Your task to perform on an android device: Open Youtube and go to "Your channel" Image 0: 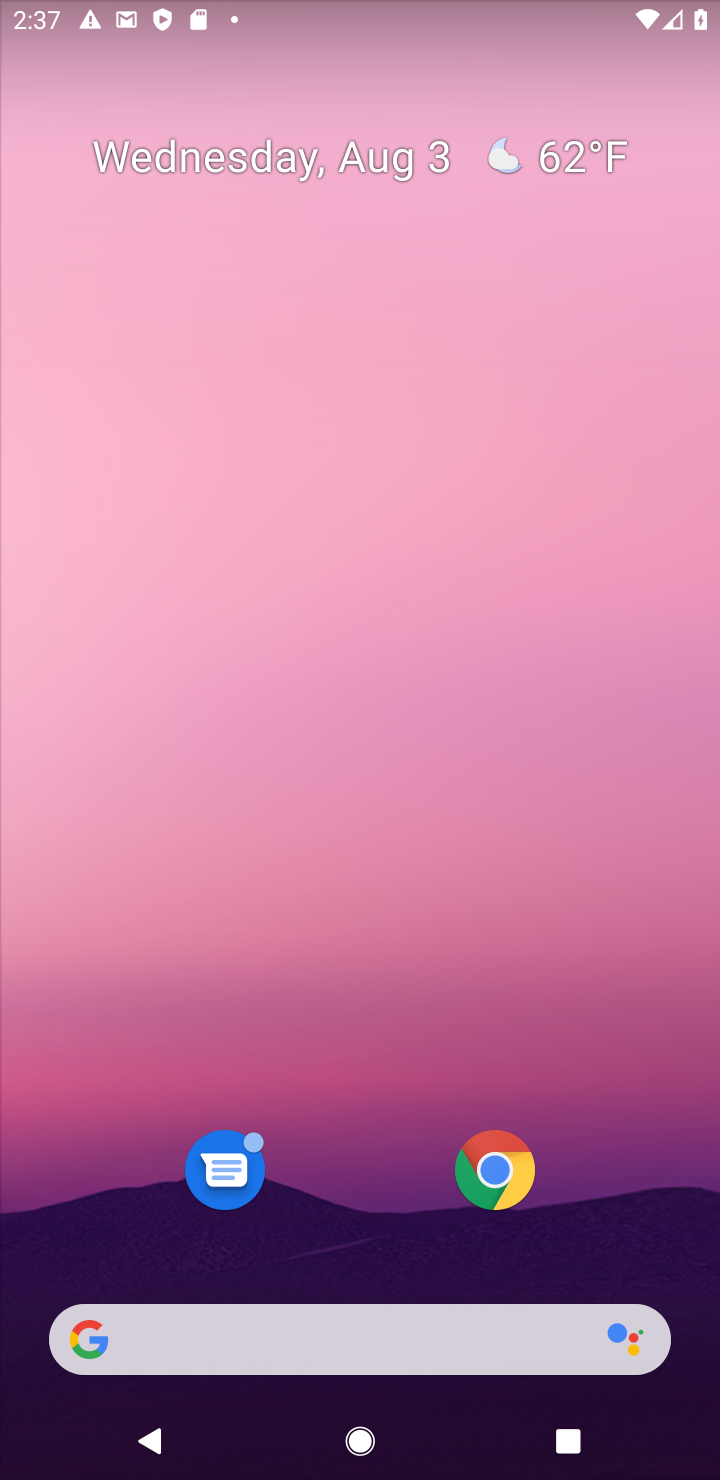
Step 0: drag from (332, 978) to (343, 25)
Your task to perform on an android device: Open Youtube and go to "Your channel" Image 1: 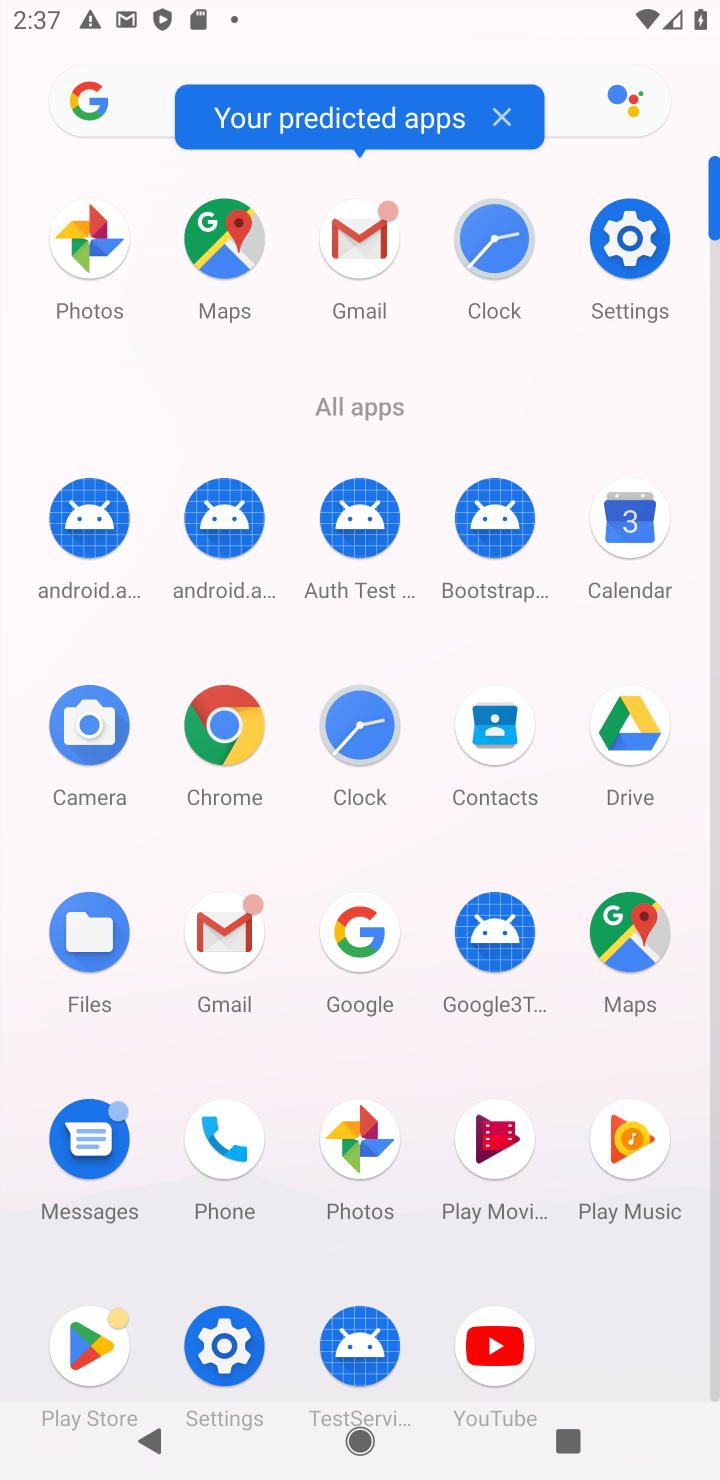
Step 1: click (473, 1346)
Your task to perform on an android device: Open Youtube and go to "Your channel" Image 2: 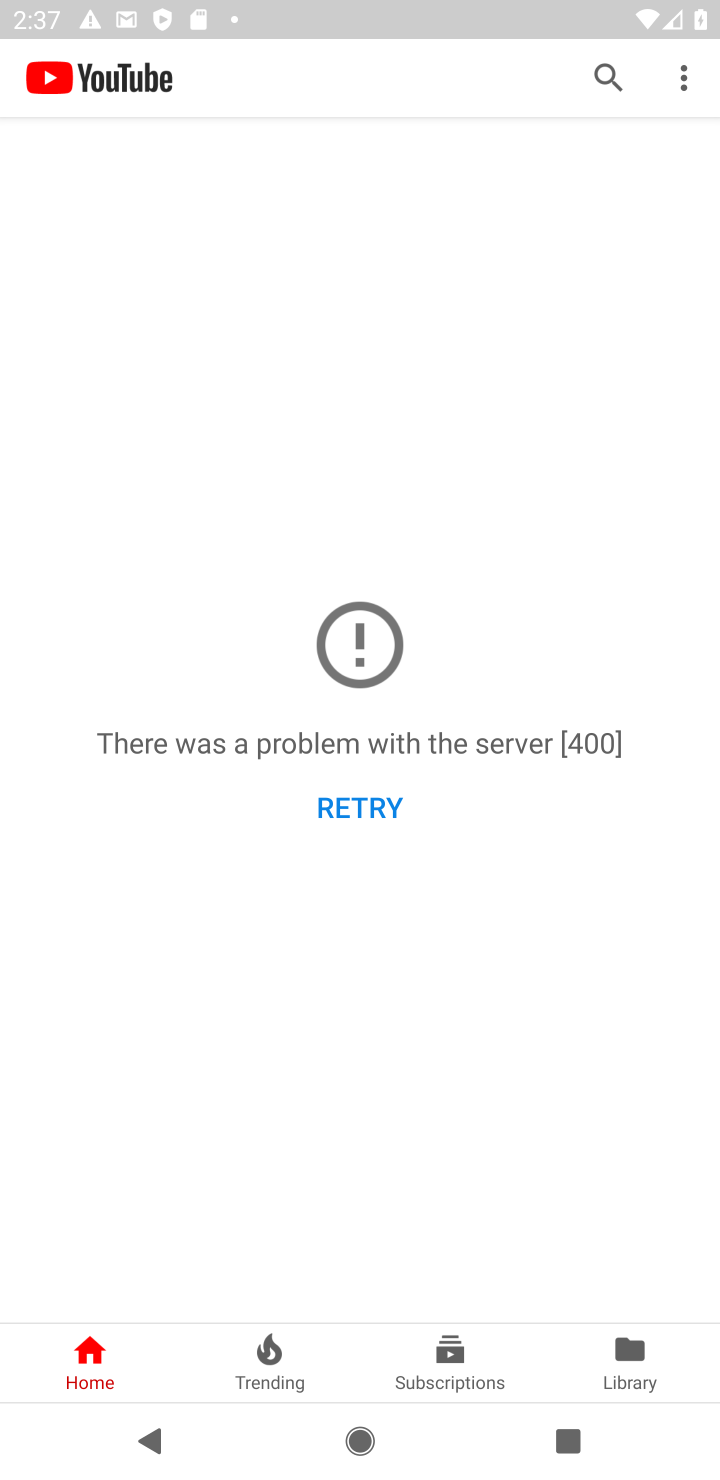
Step 2: click (715, 420)
Your task to perform on an android device: Open Youtube and go to "Your channel" Image 3: 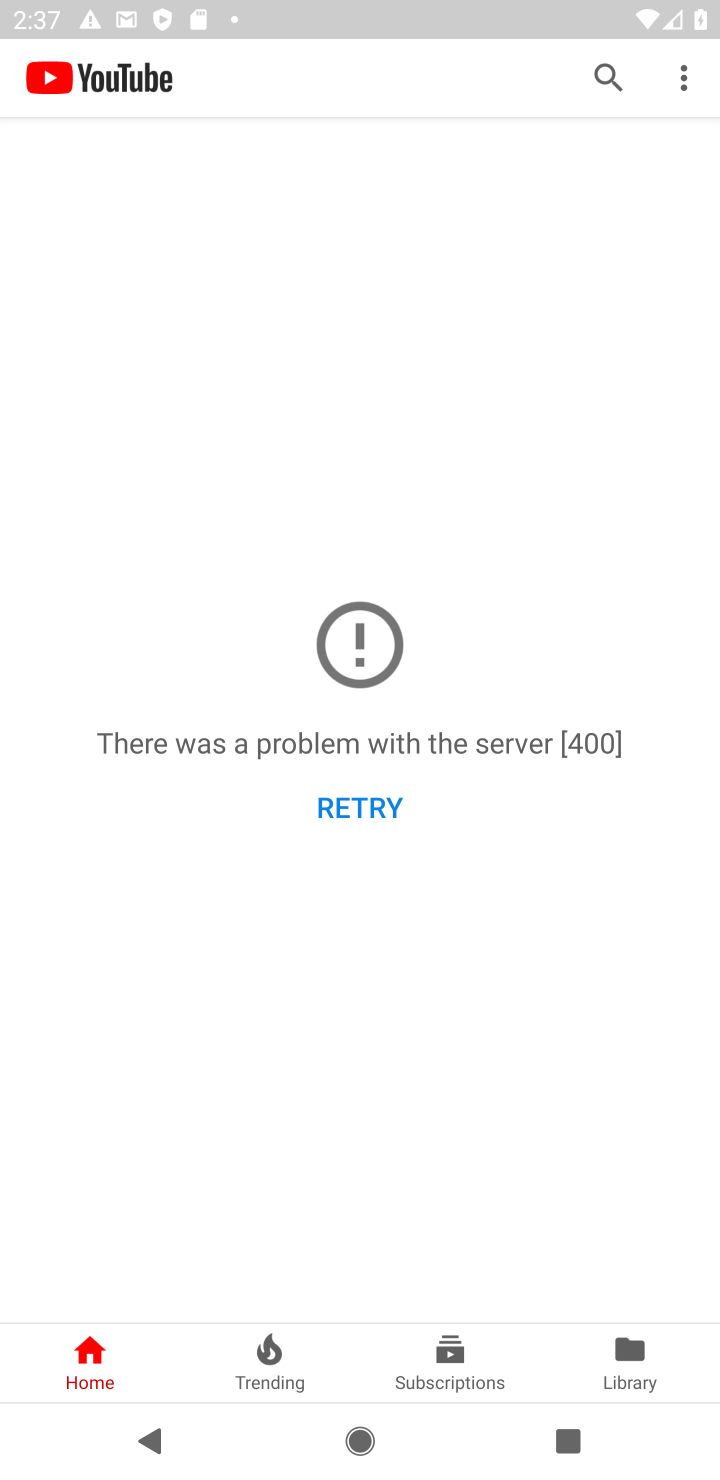
Step 3: click (642, 1356)
Your task to perform on an android device: Open Youtube and go to "Your channel" Image 4: 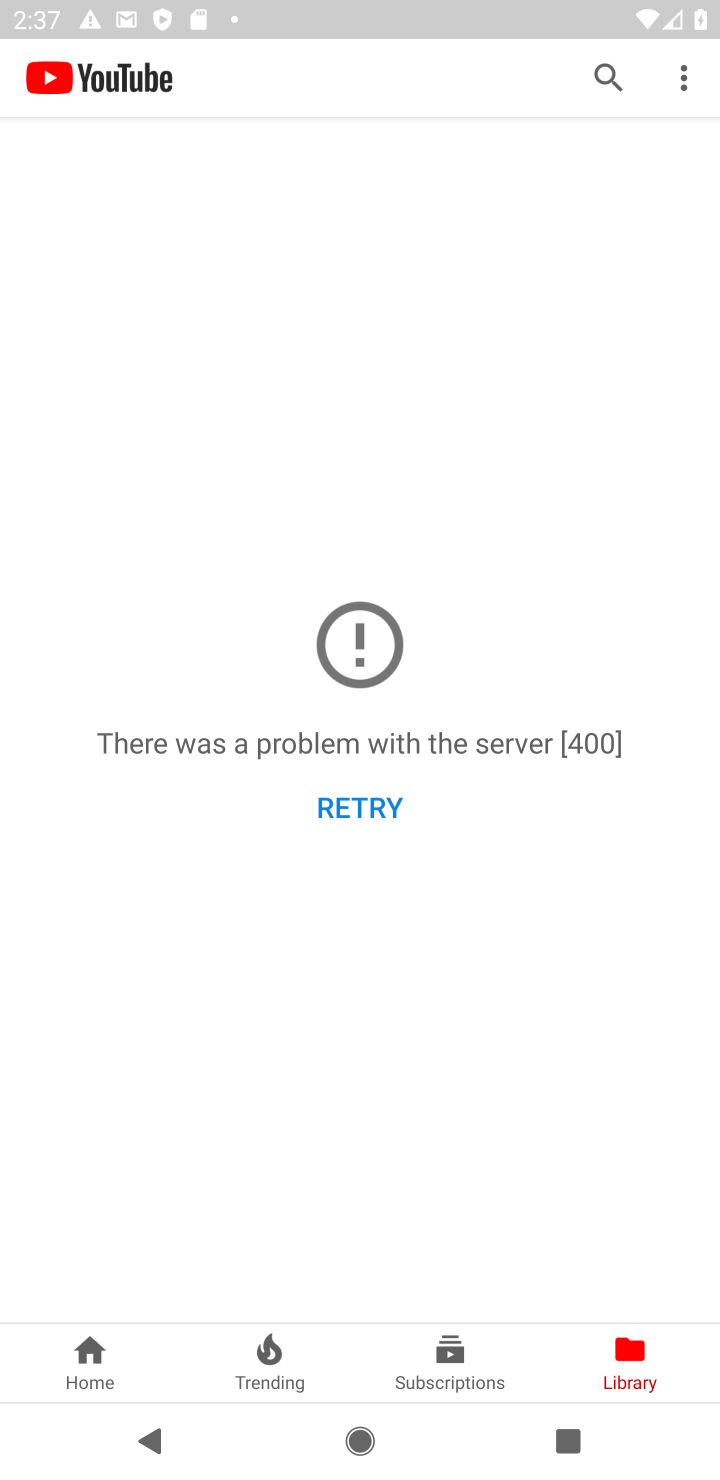
Step 4: task complete